Your task to perform on an android device: Open calendar and show me the first week of next month Image 0: 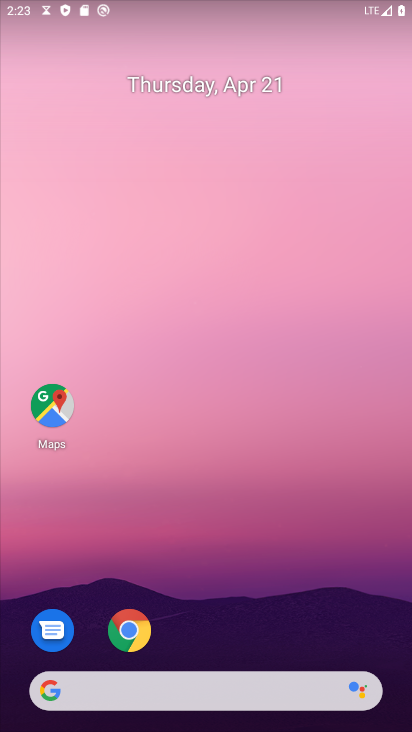
Step 0: drag from (368, 602) to (350, 5)
Your task to perform on an android device: Open calendar and show me the first week of next month Image 1: 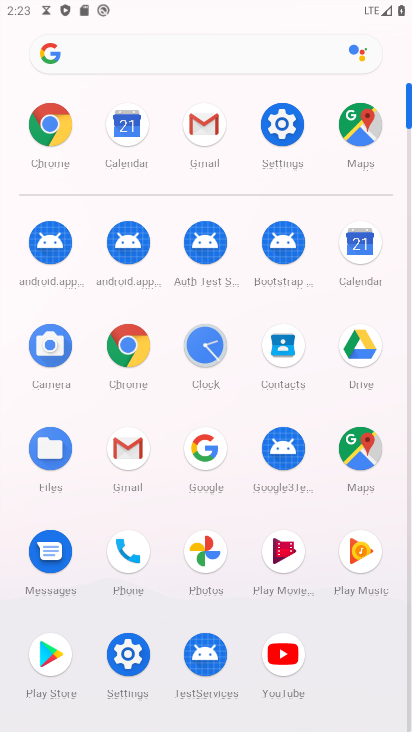
Step 1: click (356, 248)
Your task to perform on an android device: Open calendar and show me the first week of next month Image 2: 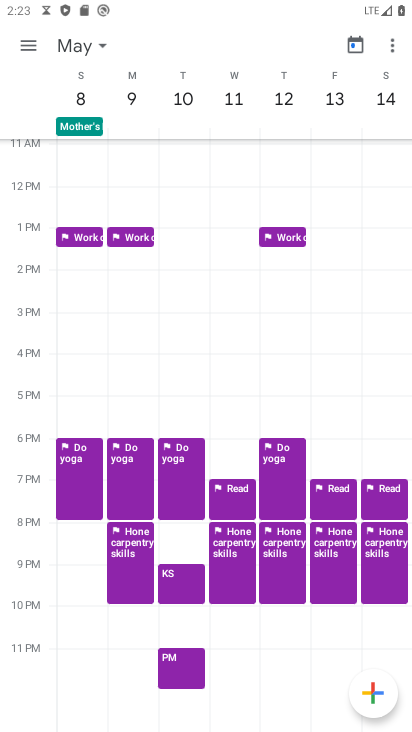
Step 2: task complete